Your task to perform on an android device: Open calendar and show me the fourth week of next month Image 0: 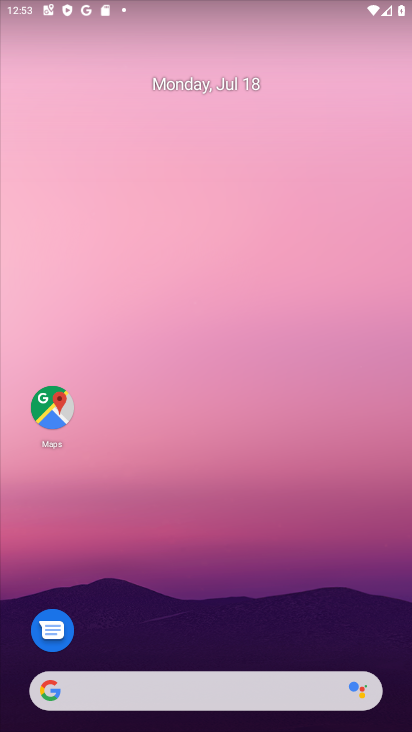
Step 0: drag from (239, 622) to (272, 6)
Your task to perform on an android device: Open calendar and show me the fourth week of next month Image 1: 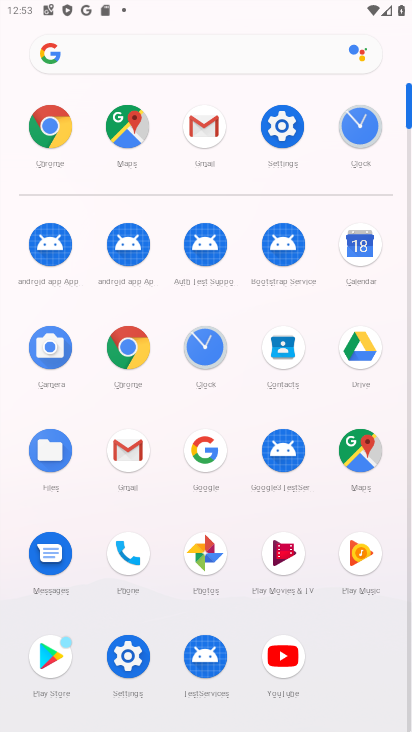
Step 1: click (358, 261)
Your task to perform on an android device: Open calendar and show me the fourth week of next month Image 2: 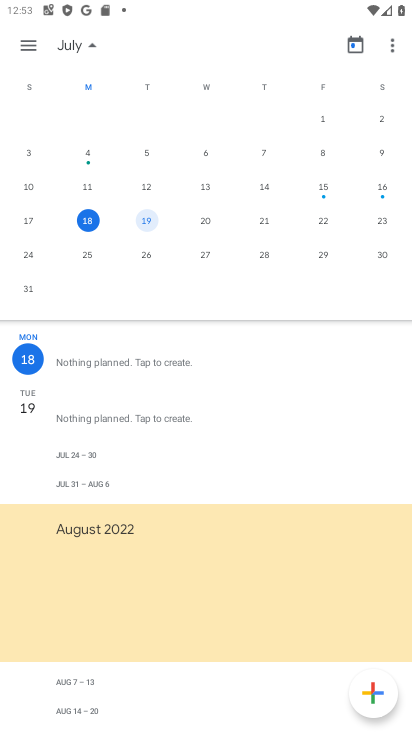
Step 2: click (21, 38)
Your task to perform on an android device: Open calendar and show me the fourth week of next month Image 3: 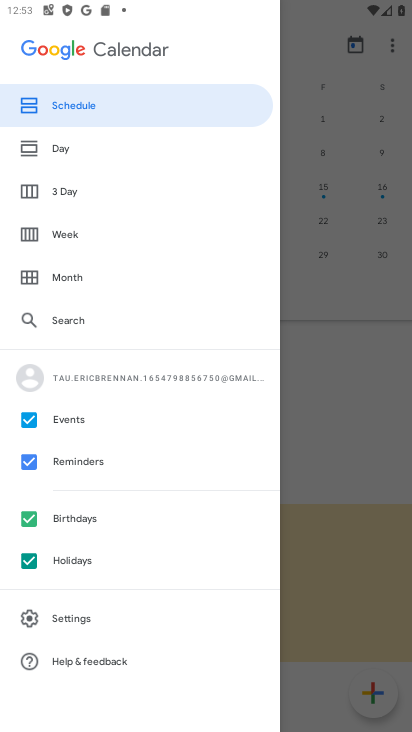
Step 3: click (87, 228)
Your task to perform on an android device: Open calendar and show me the fourth week of next month Image 4: 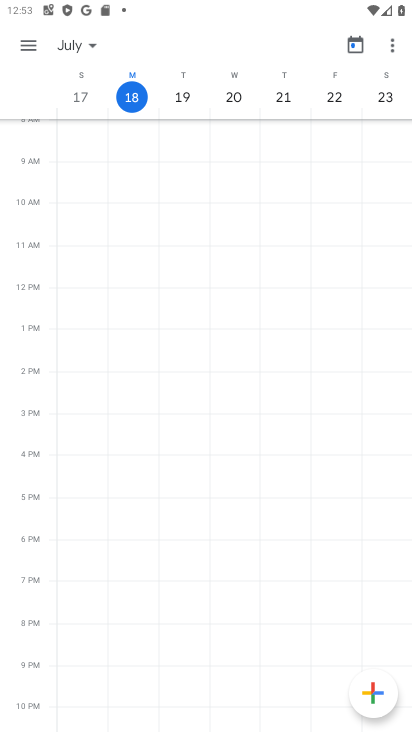
Step 4: click (89, 39)
Your task to perform on an android device: Open calendar and show me the fourth week of next month Image 5: 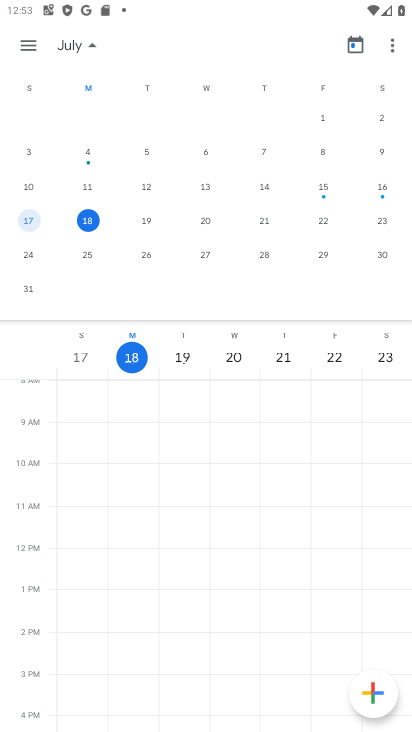
Step 5: drag from (299, 204) to (0, 327)
Your task to perform on an android device: Open calendar and show me the fourth week of next month Image 6: 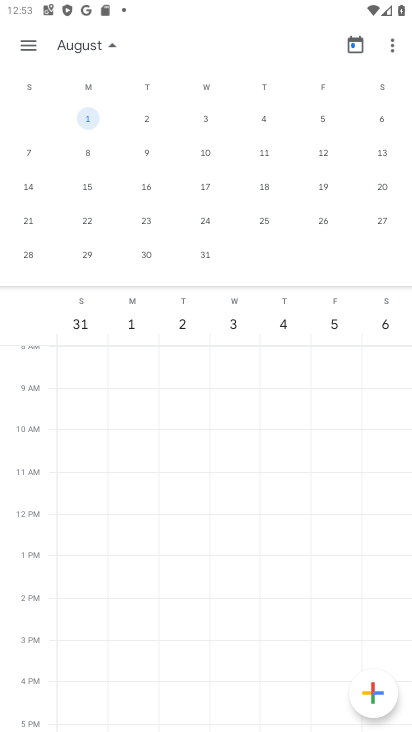
Step 6: click (202, 225)
Your task to perform on an android device: Open calendar and show me the fourth week of next month Image 7: 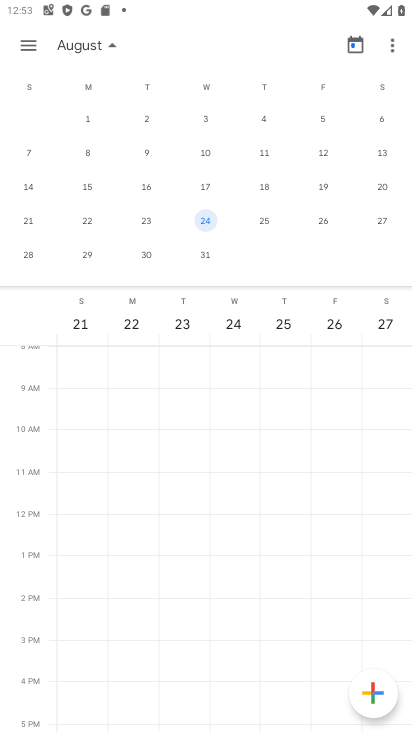
Step 7: task complete